Your task to perform on an android device: turn on airplane mode Image 0: 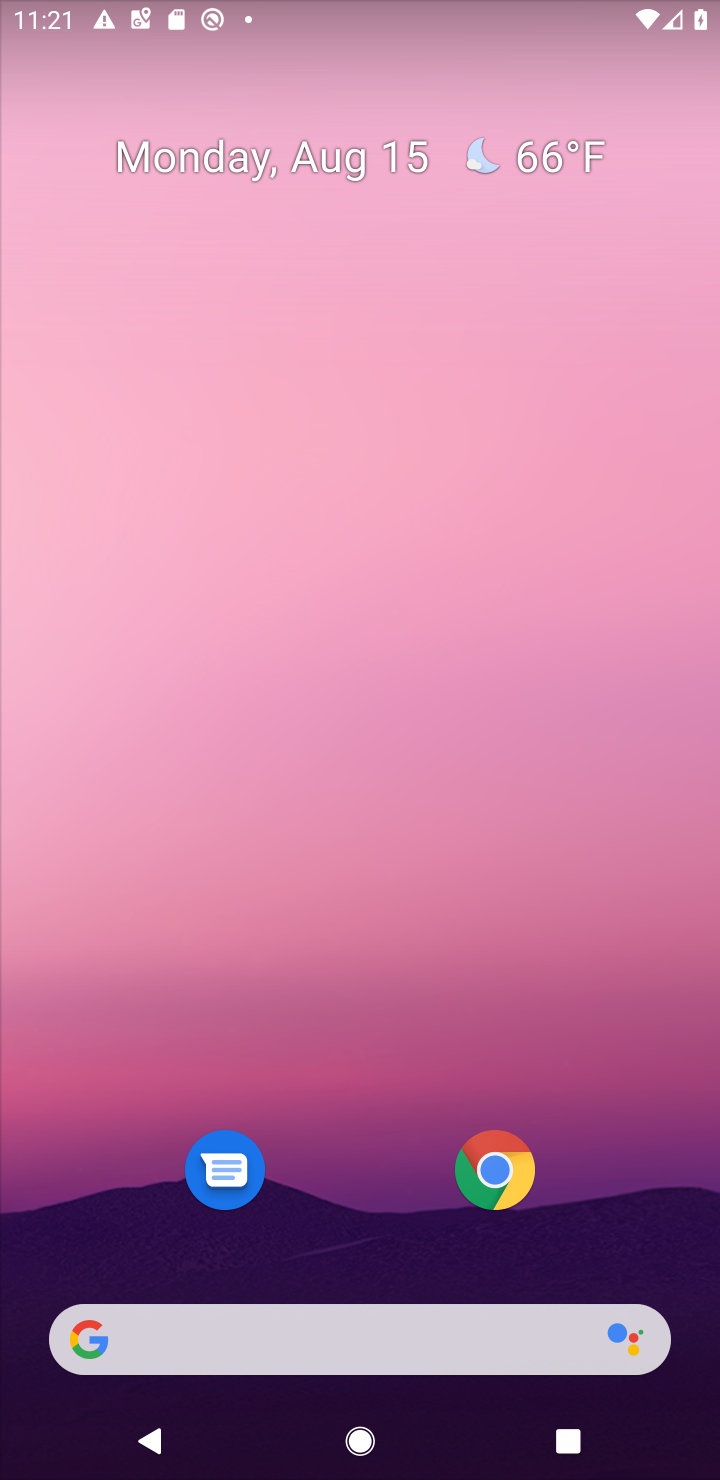
Step 0: drag from (394, 1164) to (419, 3)
Your task to perform on an android device: turn on airplane mode Image 1: 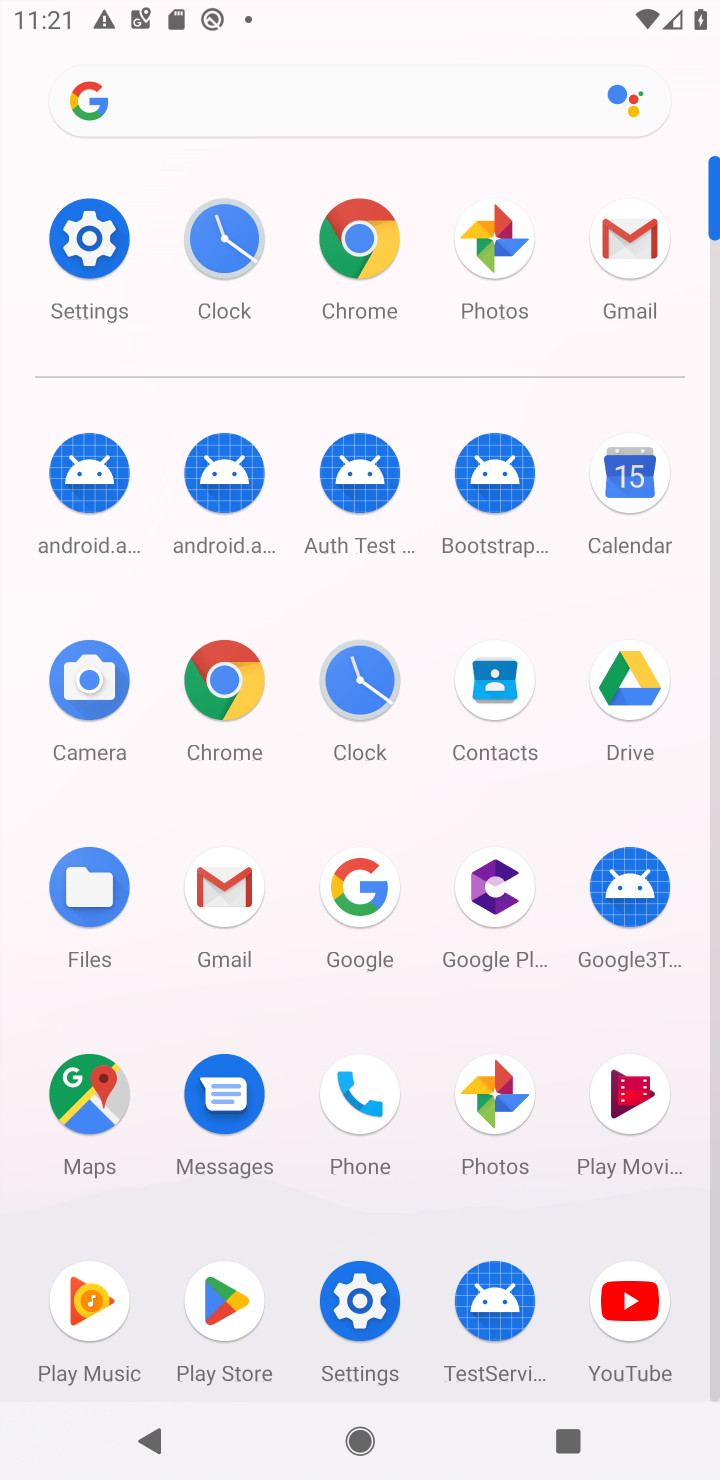
Step 1: click (86, 229)
Your task to perform on an android device: turn on airplane mode Image 2: 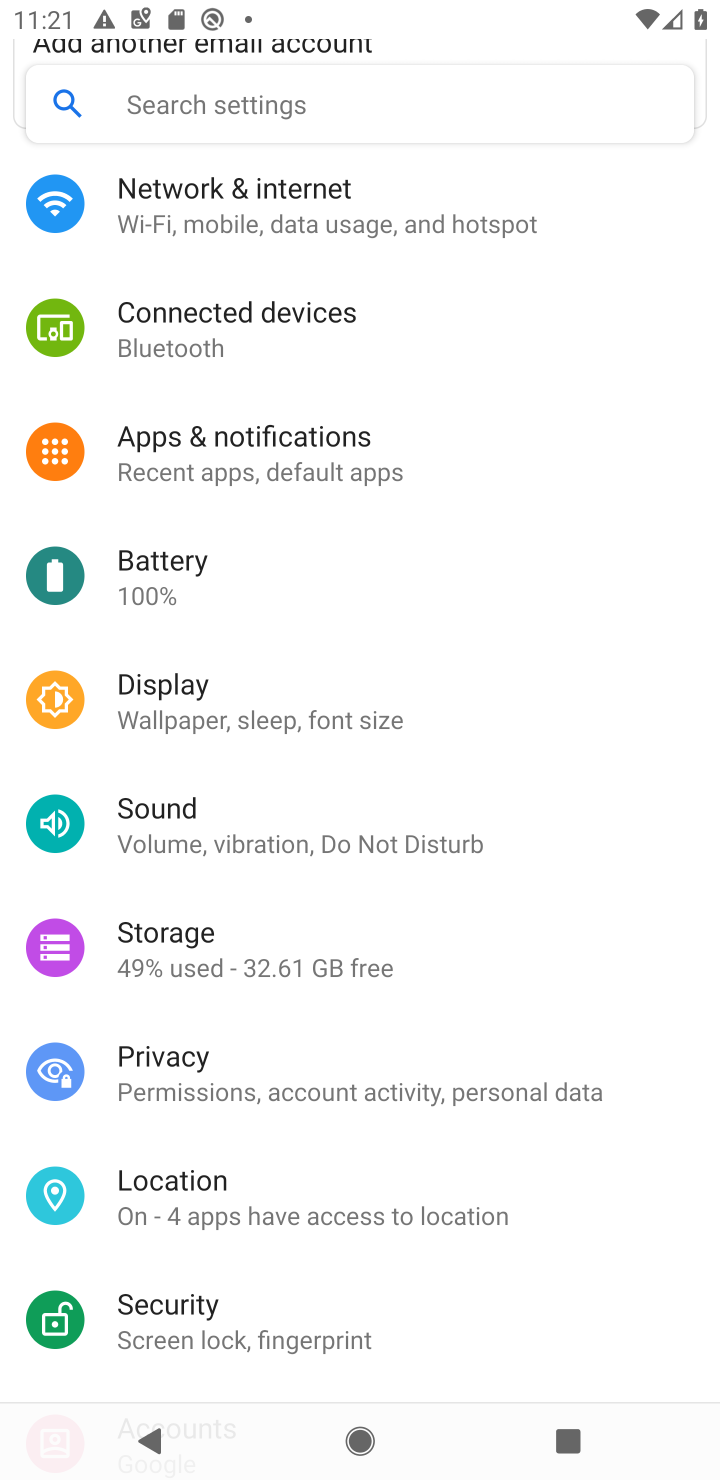
Step 2: click (365, 187)
Your task to perform on an android device: turn on airplane mode Image 3: 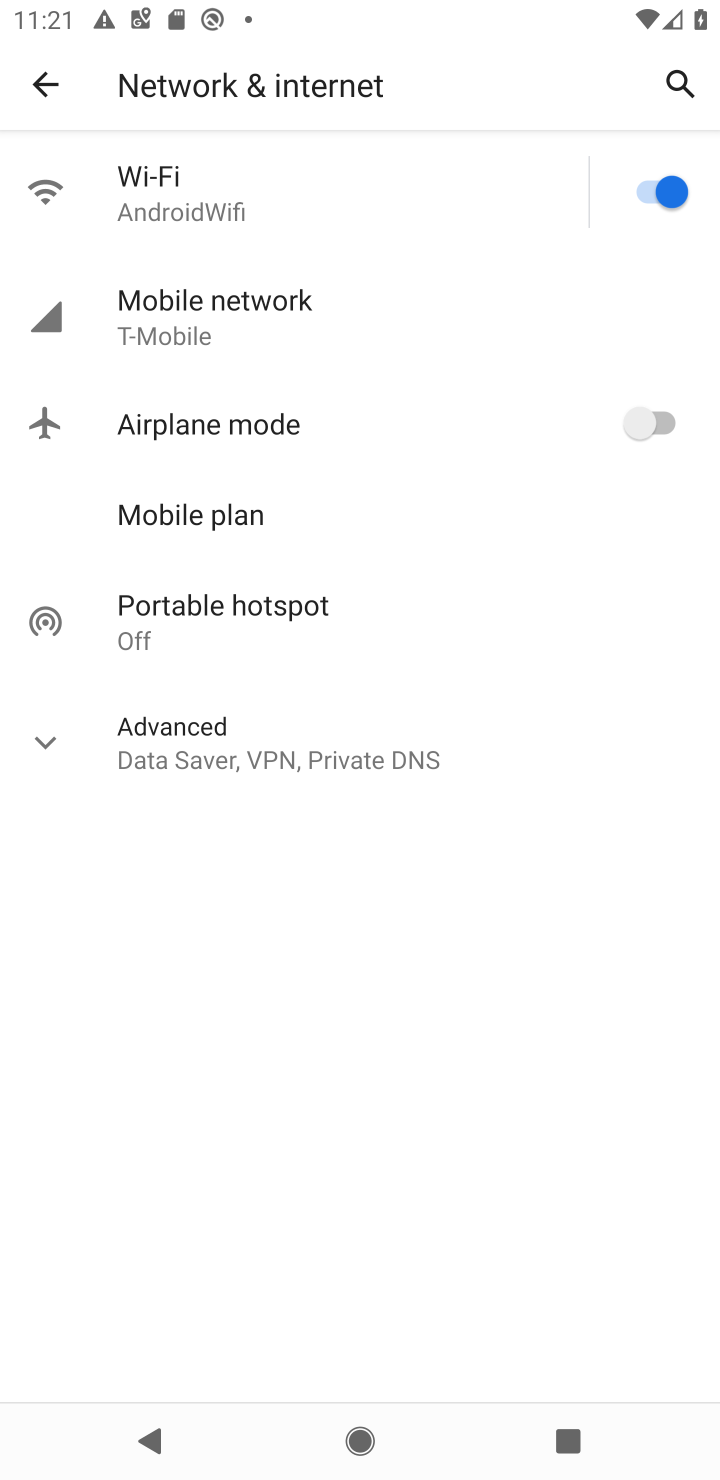
Step 3: click (656, 411)
Your task to perform on an android device: turn on airplane mode Image 4: 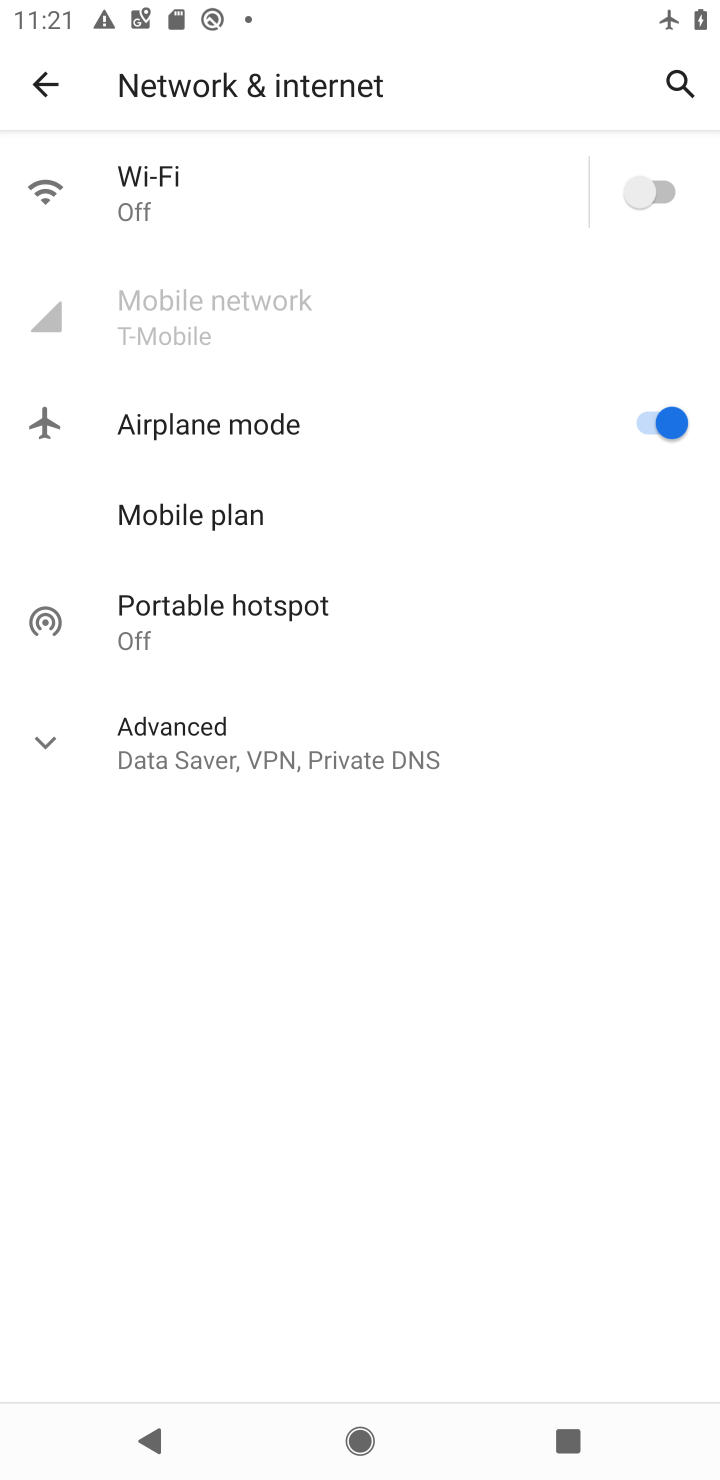
Step 4: task complete